Your task to perform on an android device: remove spam from my inbox in the gmail app Image 0: 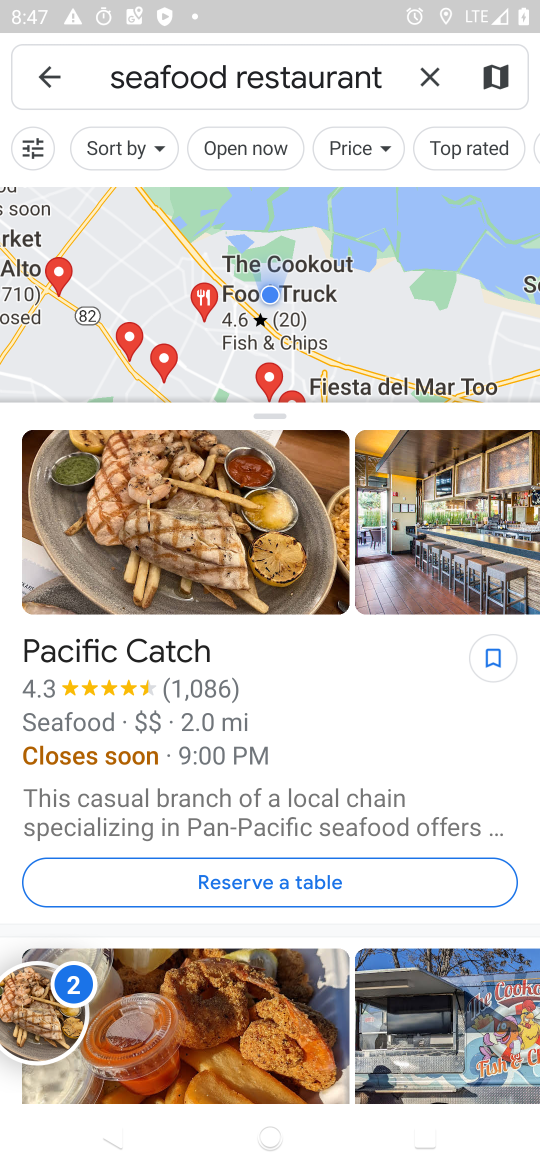
Step 0: press home button
Your task to perform on an android device: remove spam from my inbox in the gmail app Image 1: 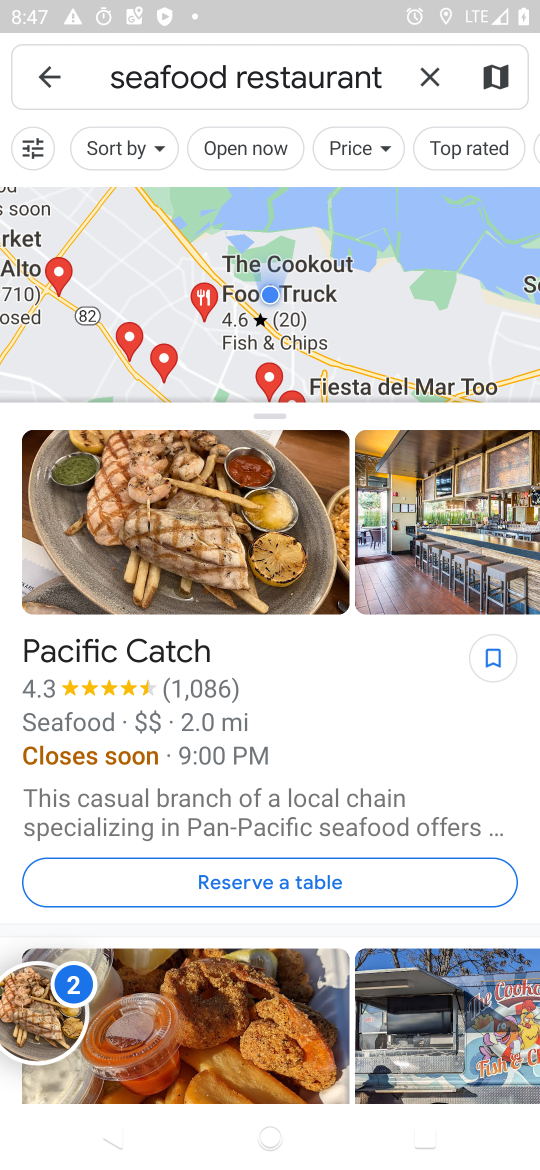
Step 1: drag from (200, 277) to (176, 113)
Your task to perform on an android device: remove spam from my inbox in the gmail app Image 2: 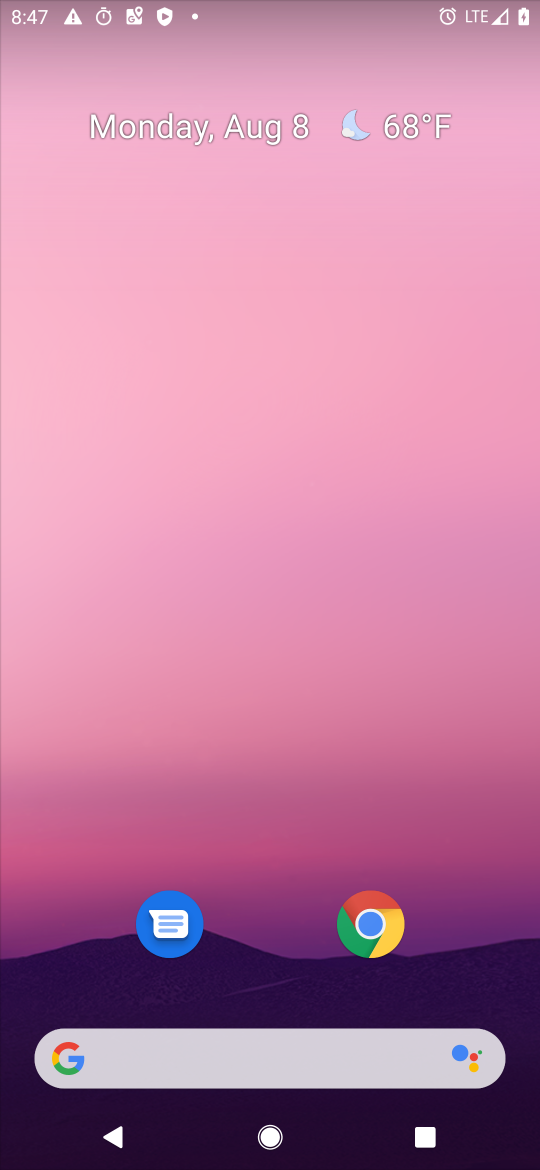
Step 2: drag from (272, 1001) to (181, 122)
Your task to perform on an android device: remove spam from my inbox in the gmail app Image 3: 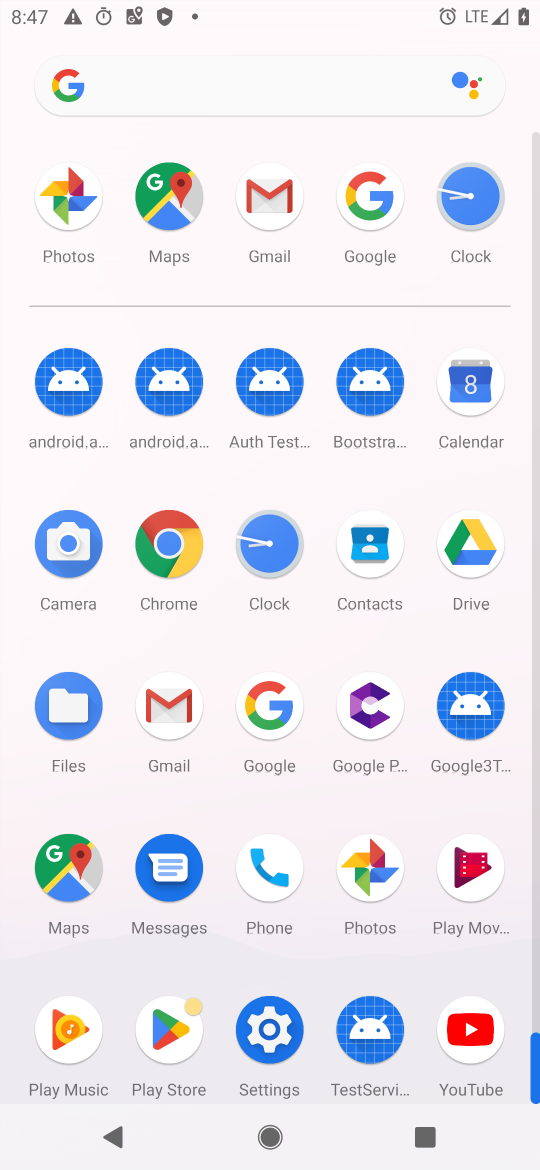
Step 3: click (188, 730)
Your task to perform on an android device: remove spam from my inbox in the gmail app Image 4: 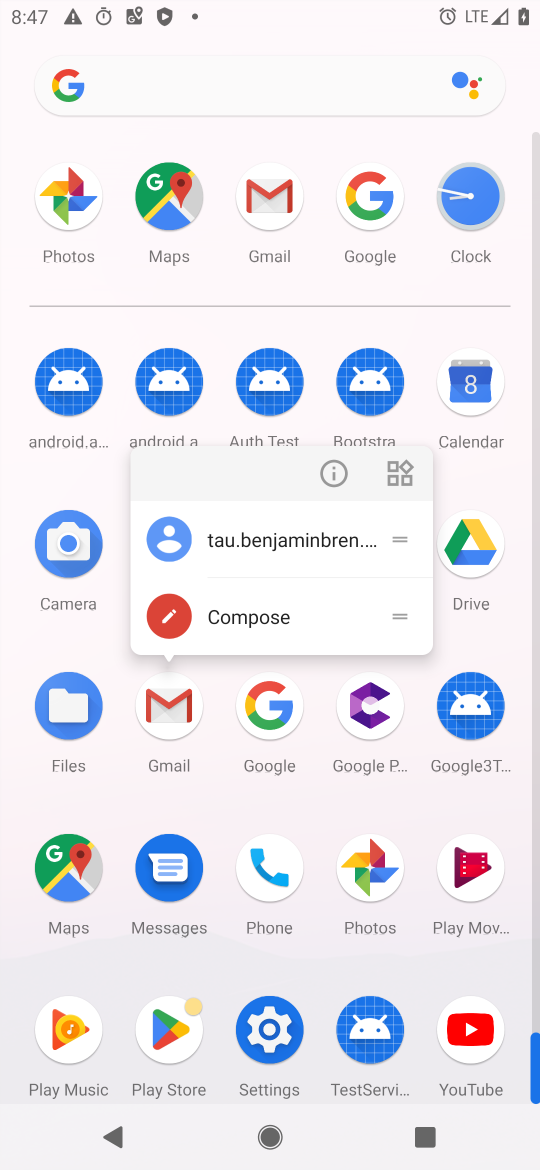
Step 4: click (328, 462)
Your task to perform on an android device: remove spam from my inbox in the gmail app Image 5: 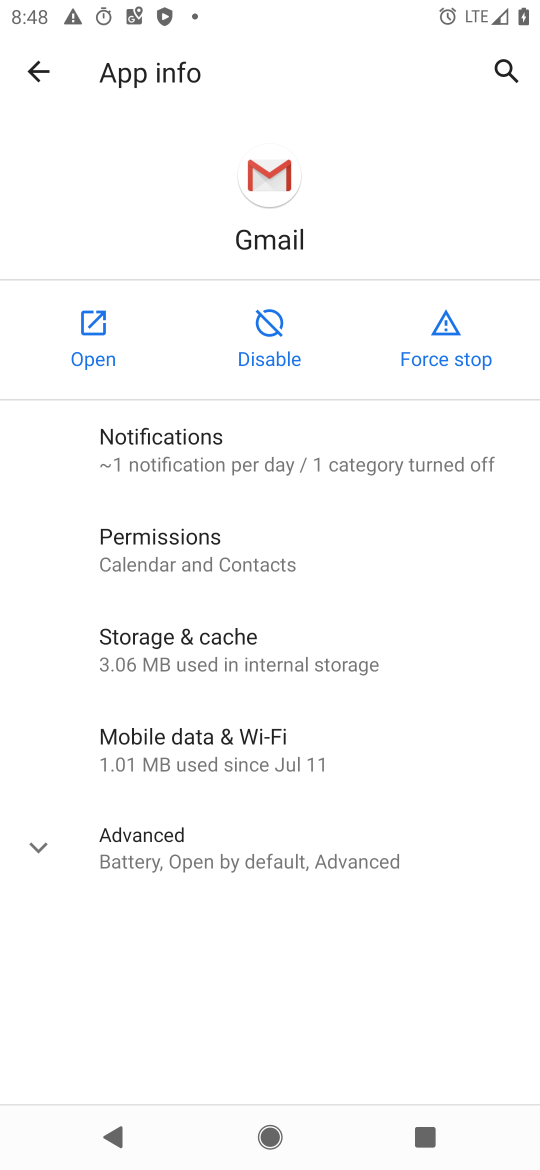
Step 5: click (118, 326)
Your task to perform on an android device: remove spam from my inbox in the gmail app Image 6: 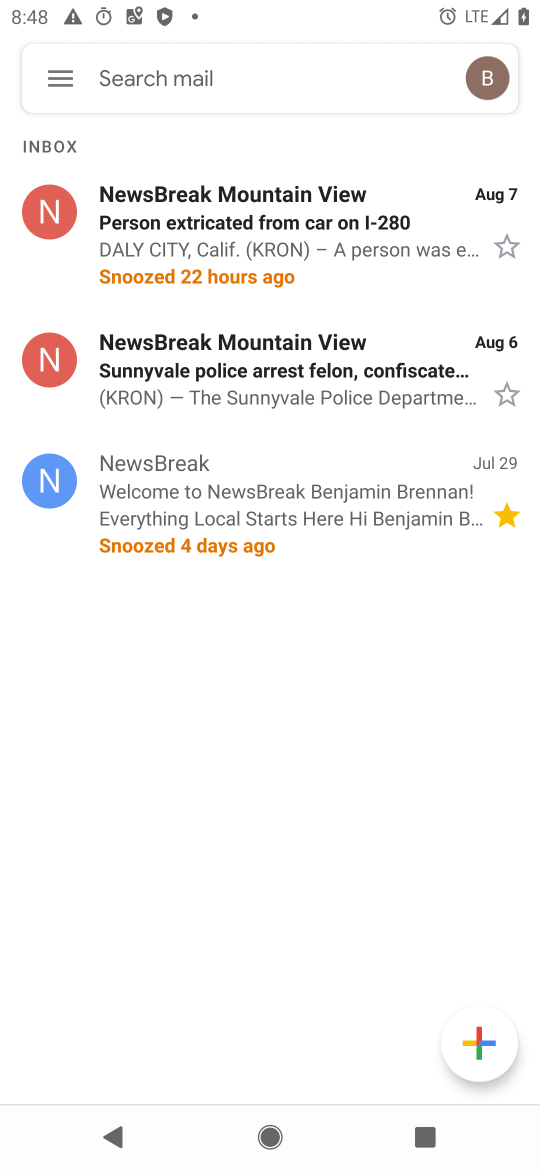
Step 6: click (39, 89)
Your task to perform on an android device: remove spam from my inbox in the gmail app Image 7: 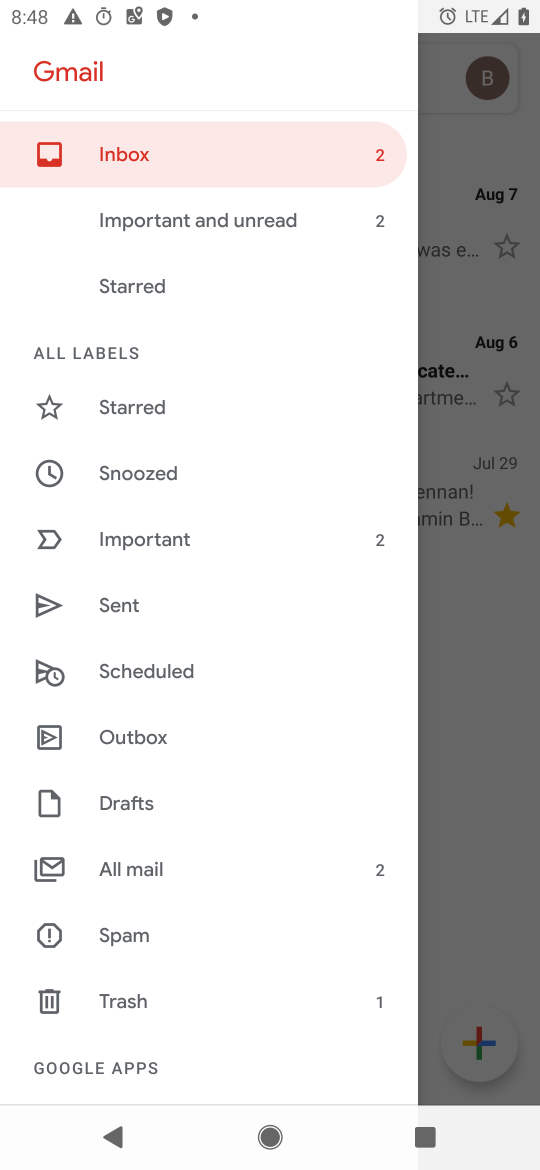
Step 7: click (186, 926)
Your task to perform on an android device: remove spam from my inbox in the gmail app Image 8: 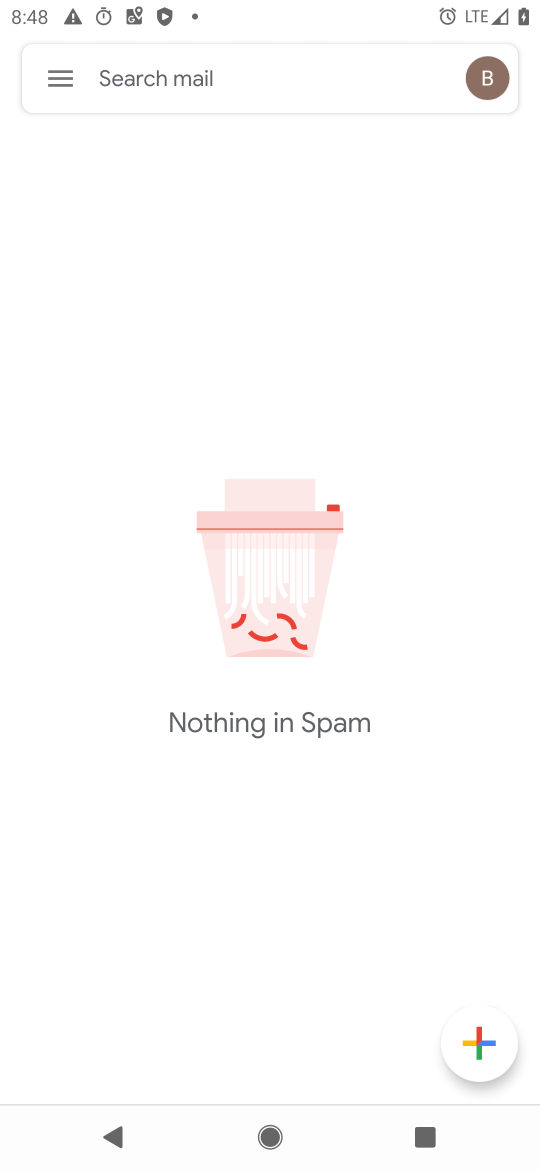
Step 8: task complete